Your task to perform on an android device: open app "PUBG MOBILE" (install if not already installed) Image 0: 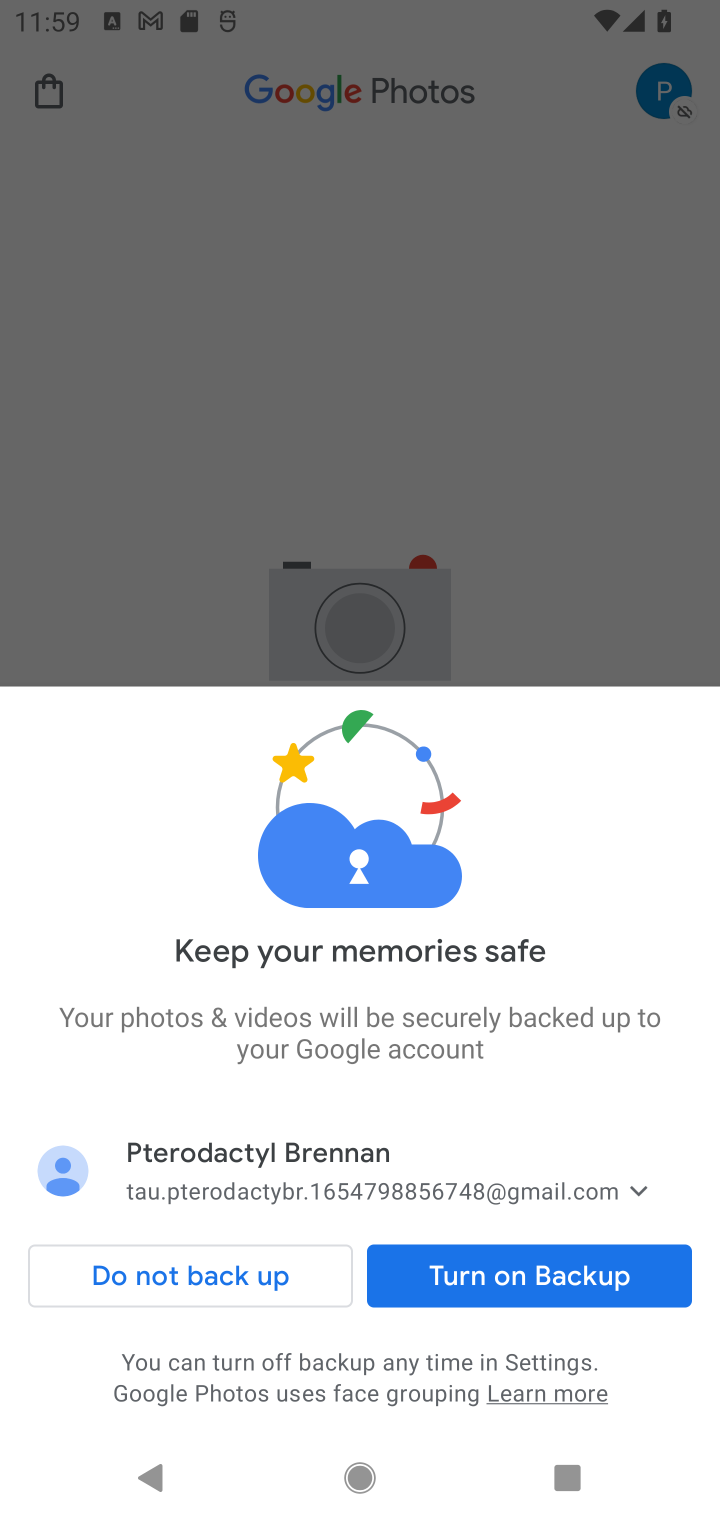
Step 0: press home button
Your task to perform on an android device: open app "PUBG MOBILE" (install if not already installed) Image 1: 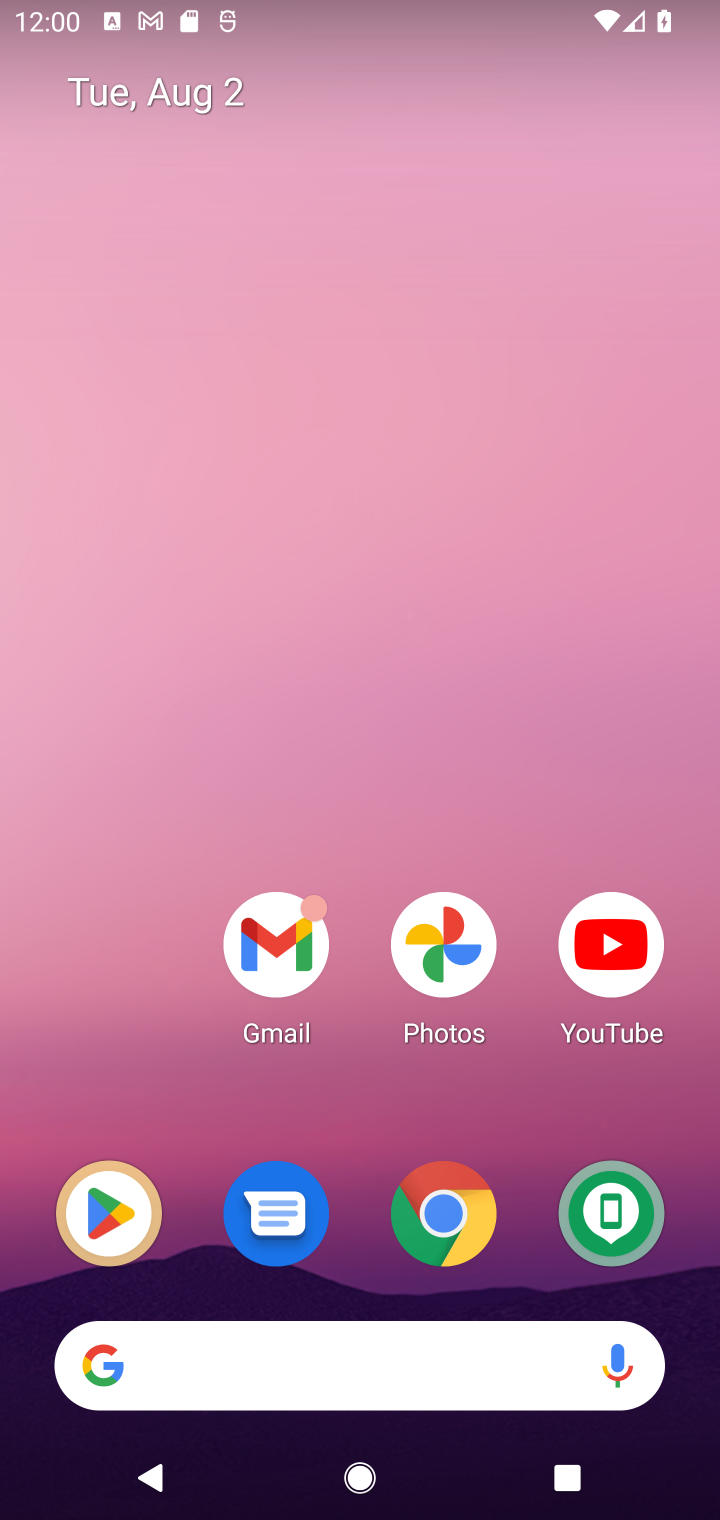
Step 1: click (102, 1244)
Your task to perform on an android device: open app "PUBG MOBILE" (install if not already installed) Image 2: 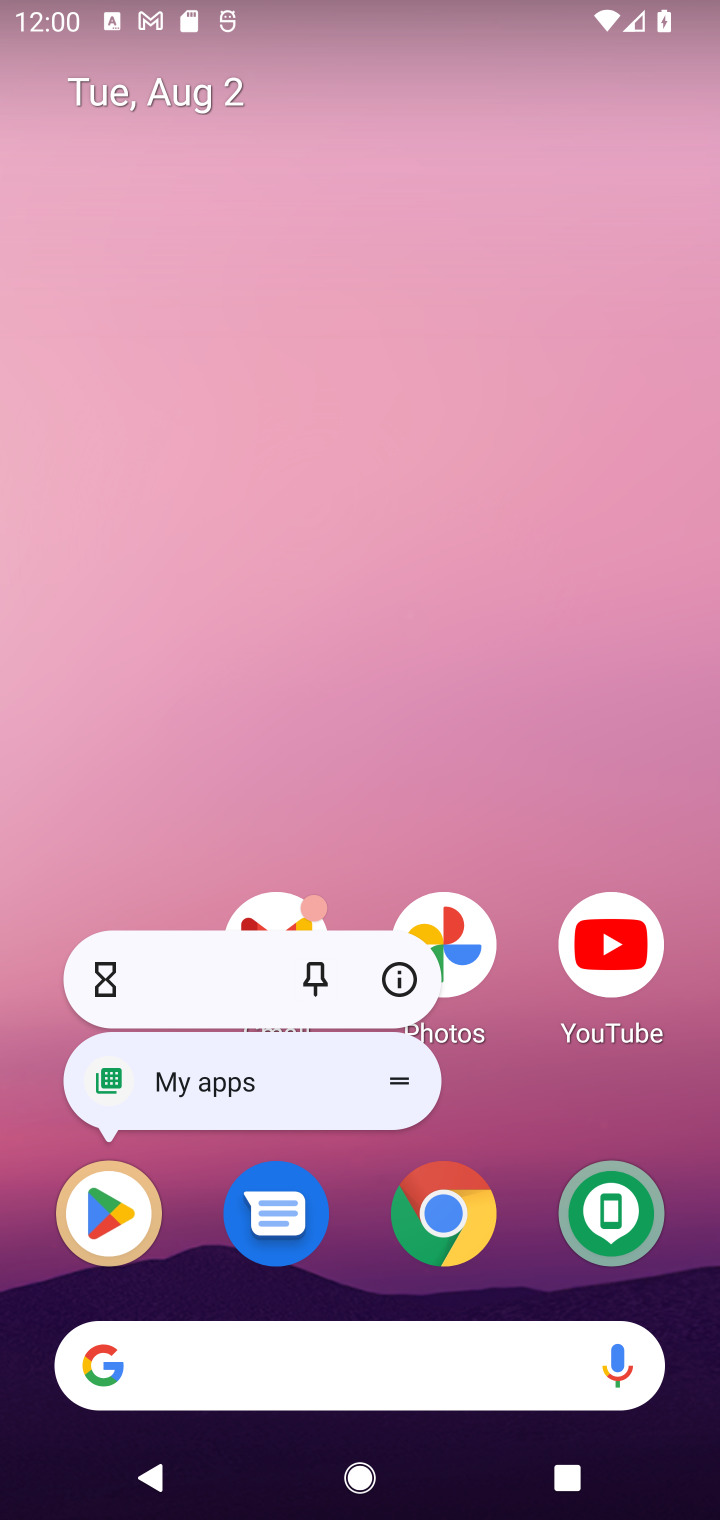
Step 2: click (103, 1231)
Your task to perform on an android device: open app "PUBG MOBILE" (install if not already installed) Image 3: 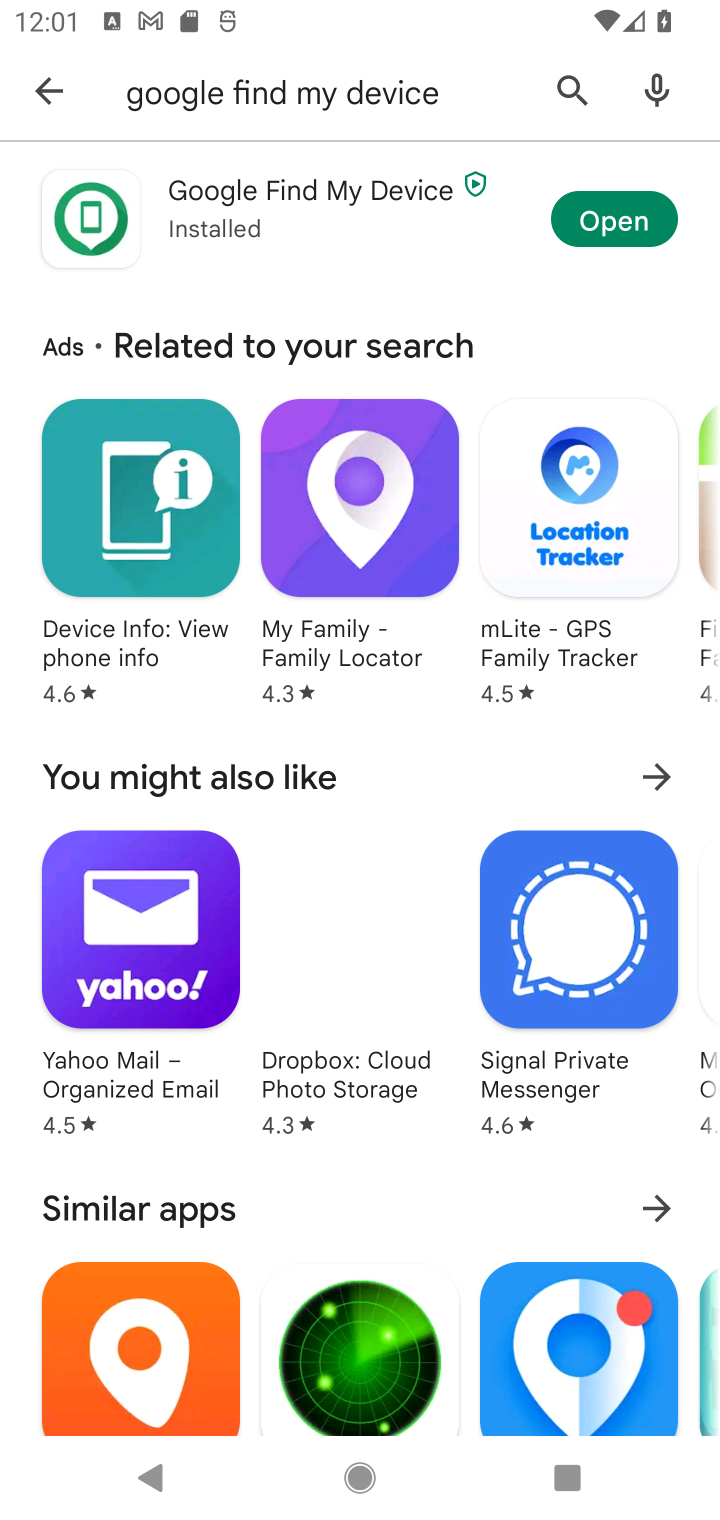
Step 3: click (38, 65)
Your task to perform on an android device: open app "PUBG MOBILE" (install if not already installed) Image 4: 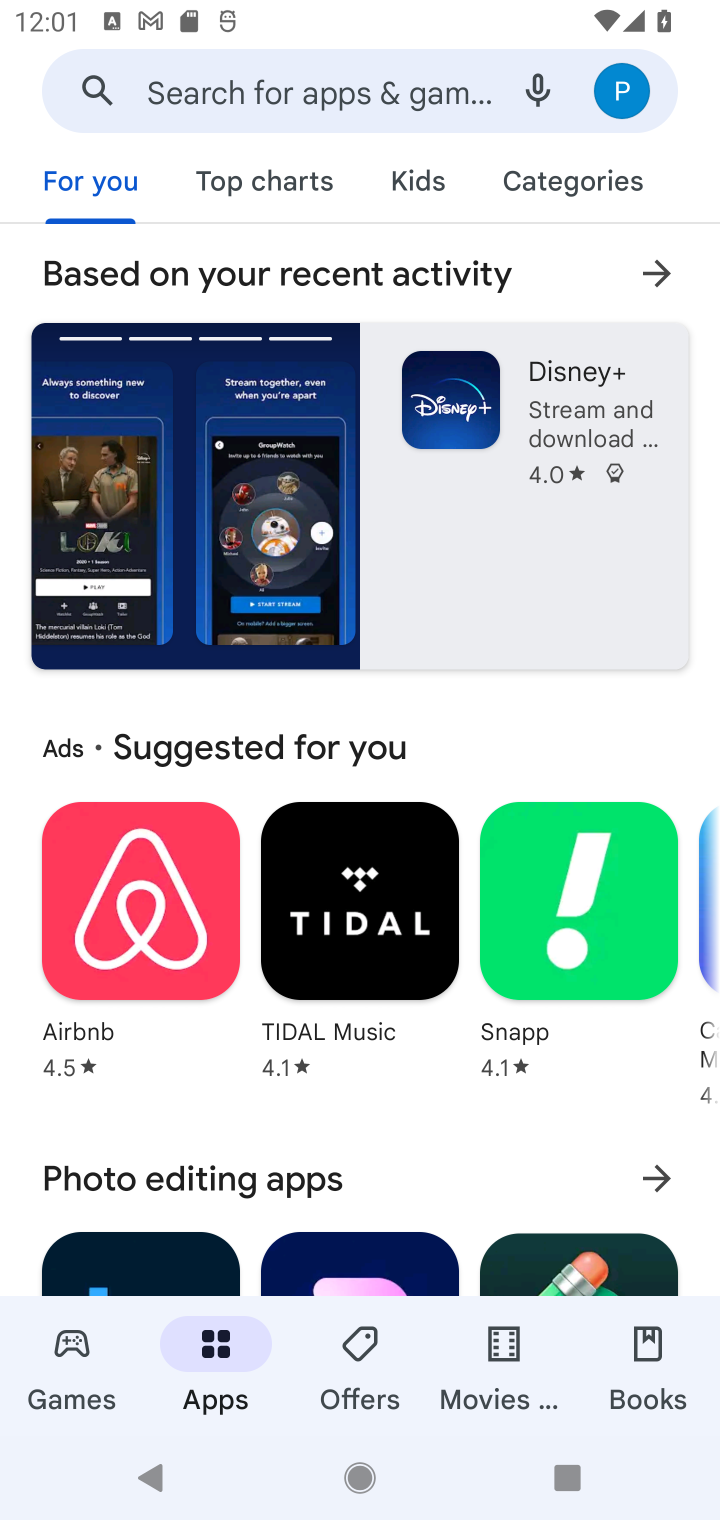
Step 4: click (315, 84)
Your task to perform on an android device: open app "PUBG MOBILE" (install if not already installed) Image 5: 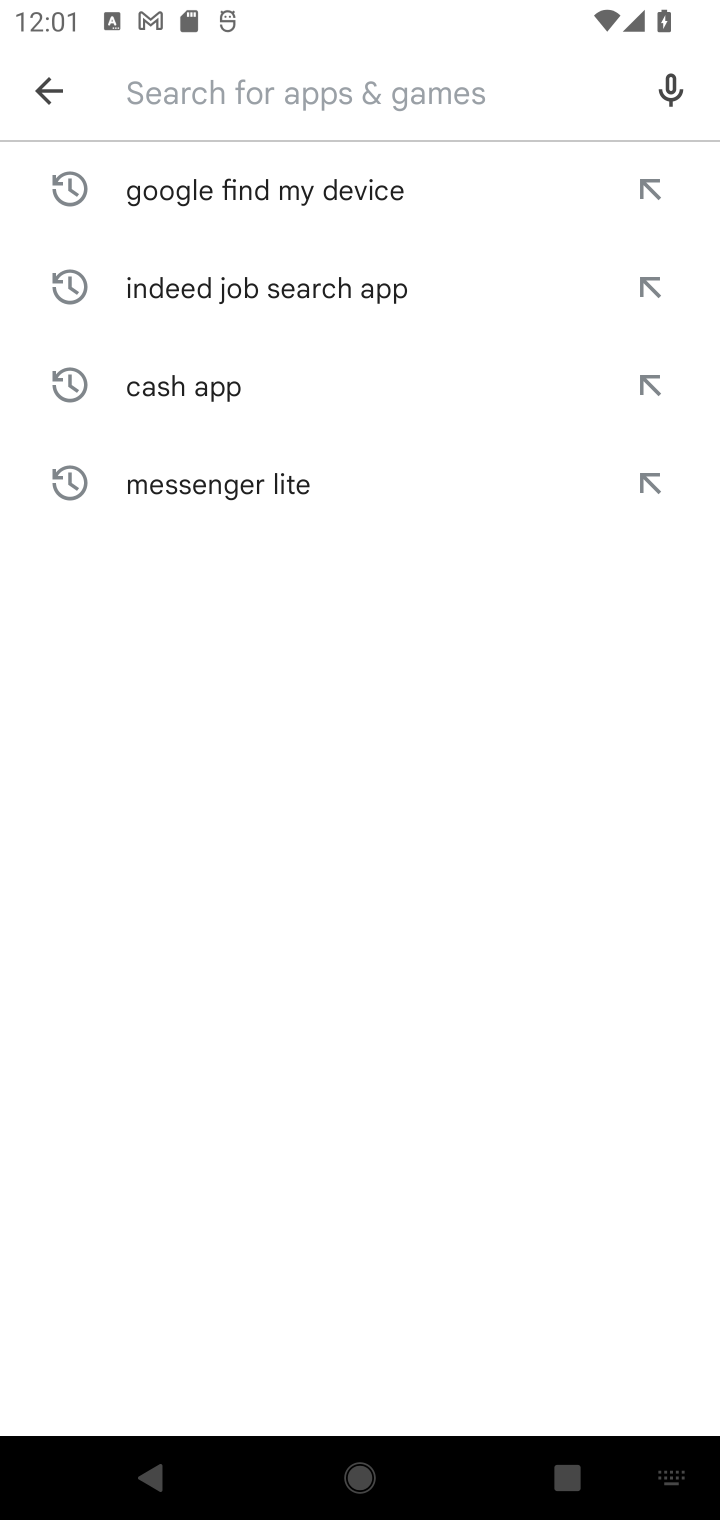
Step 5: type "PUBG MOBILE"
Your task to perform on an android device: open app "PUBG MOBILE" (install if not already installed) Image 6: 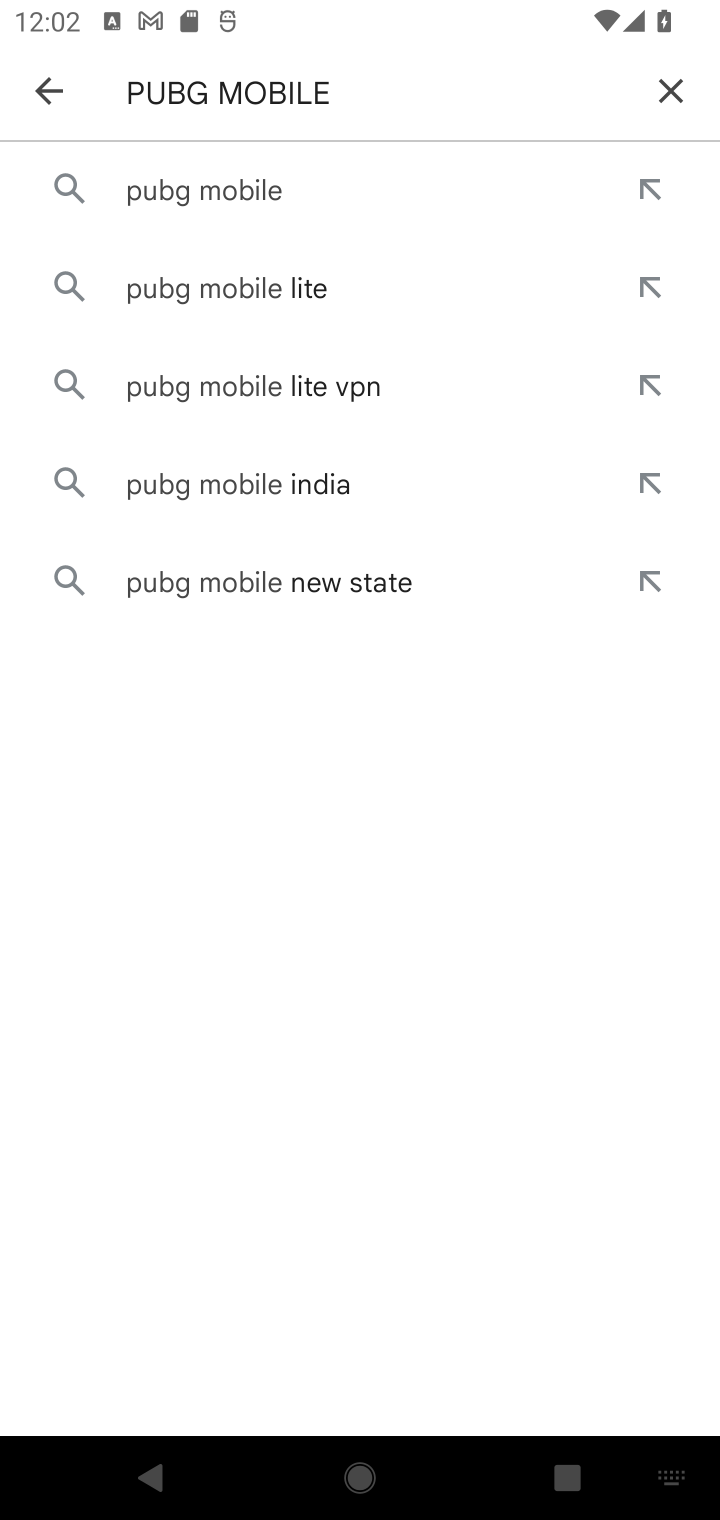
Step 6: click (176, 207)
Your task to perform on an android device: open app "PUBG MOBILE" (install if not already installed) Image 7: 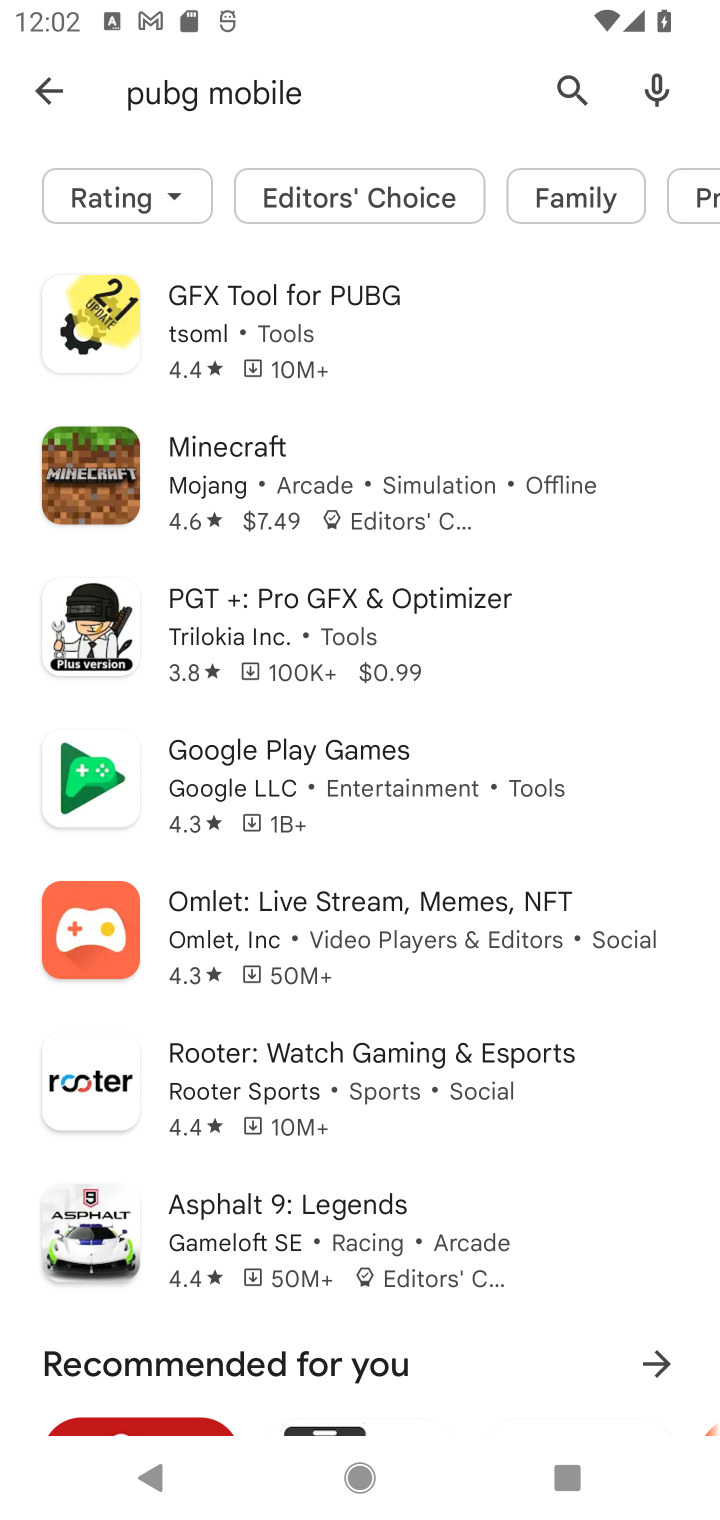
Step 7: click (261, 345)
Your task to perform on an android device: open app "PUBG MOBILE" (install if not already installed) Image 8: 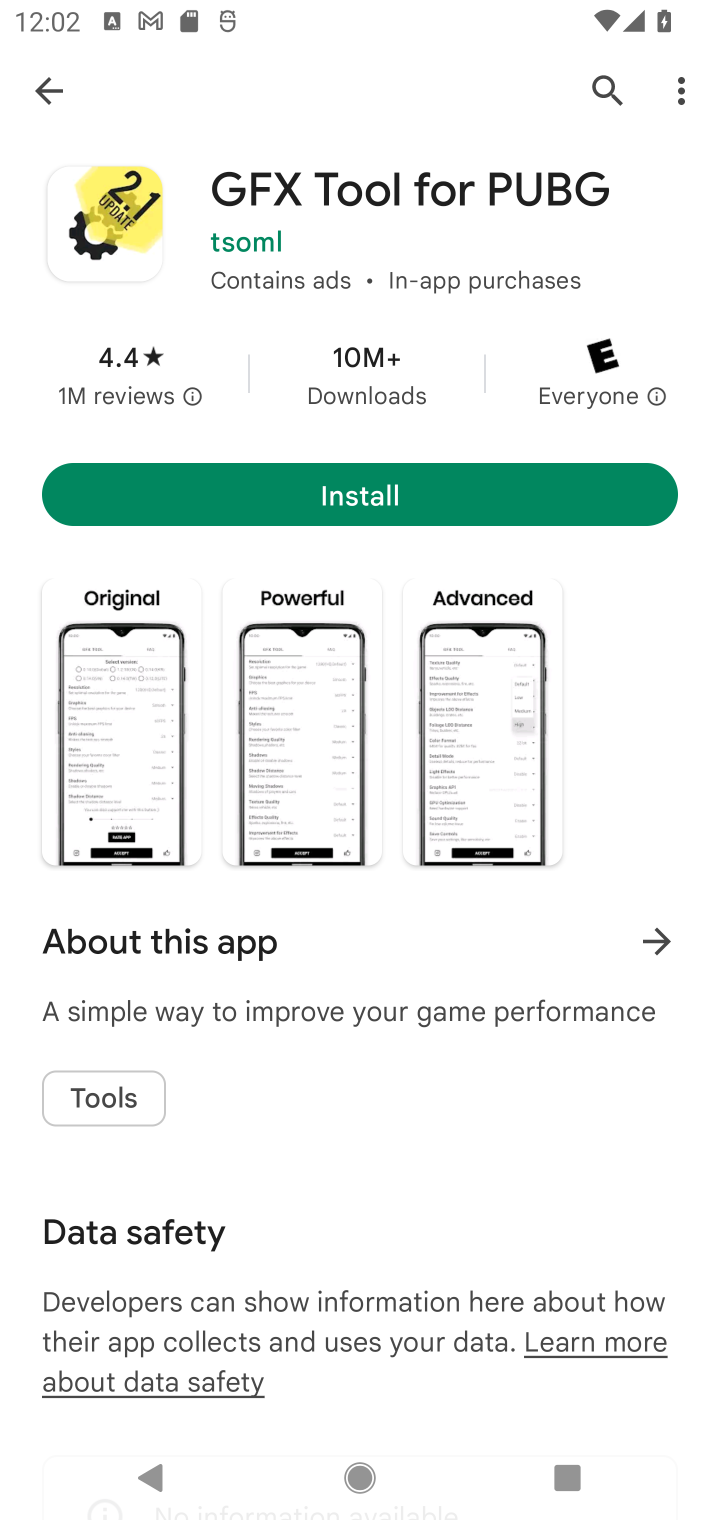
Step 8: click (336, 492)
Your task to perform on an android device: open app "PUBG MOBILE" (install if not already installed) Image 9: 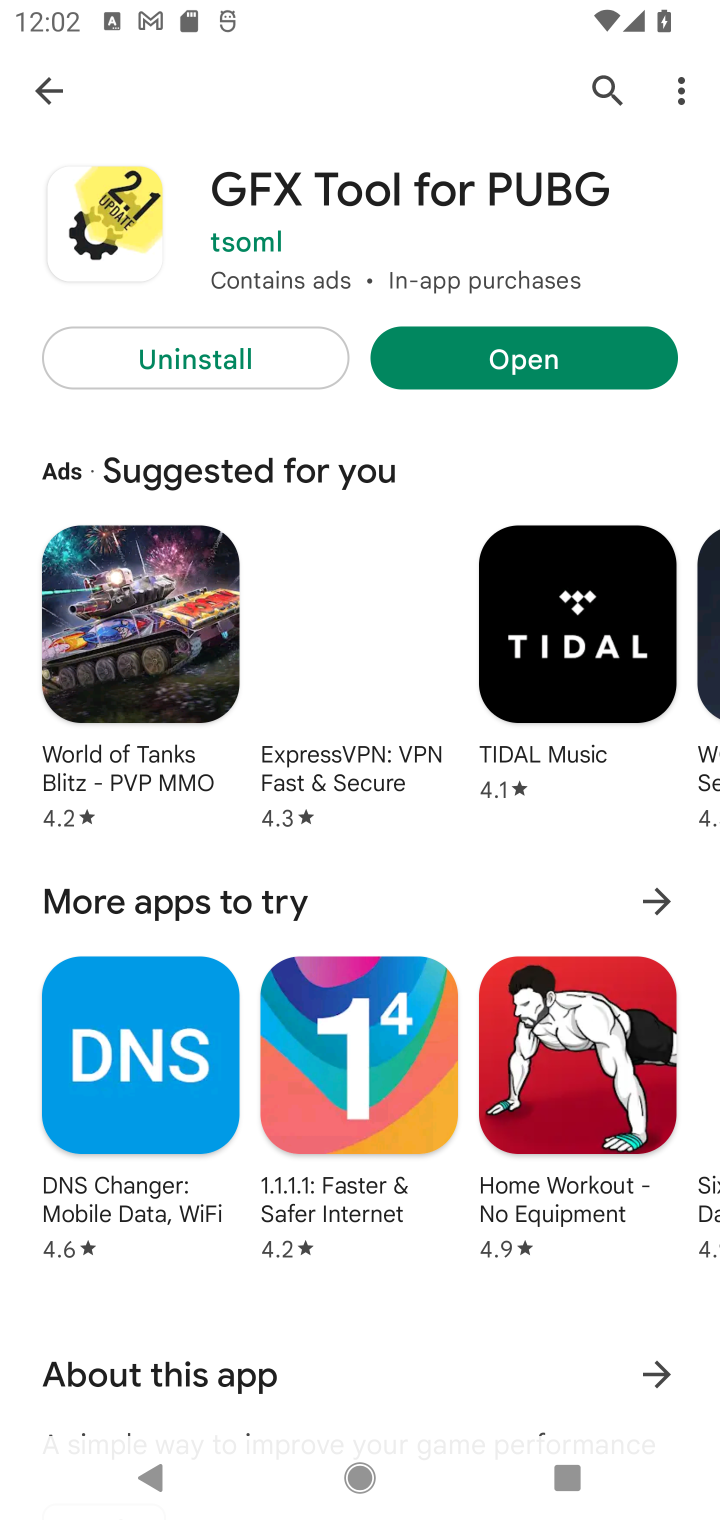
Step 9: click (478, 371)
Your task to perform on an android device: open app "PUBG MOBILE" (install if not already installed) Image 10: 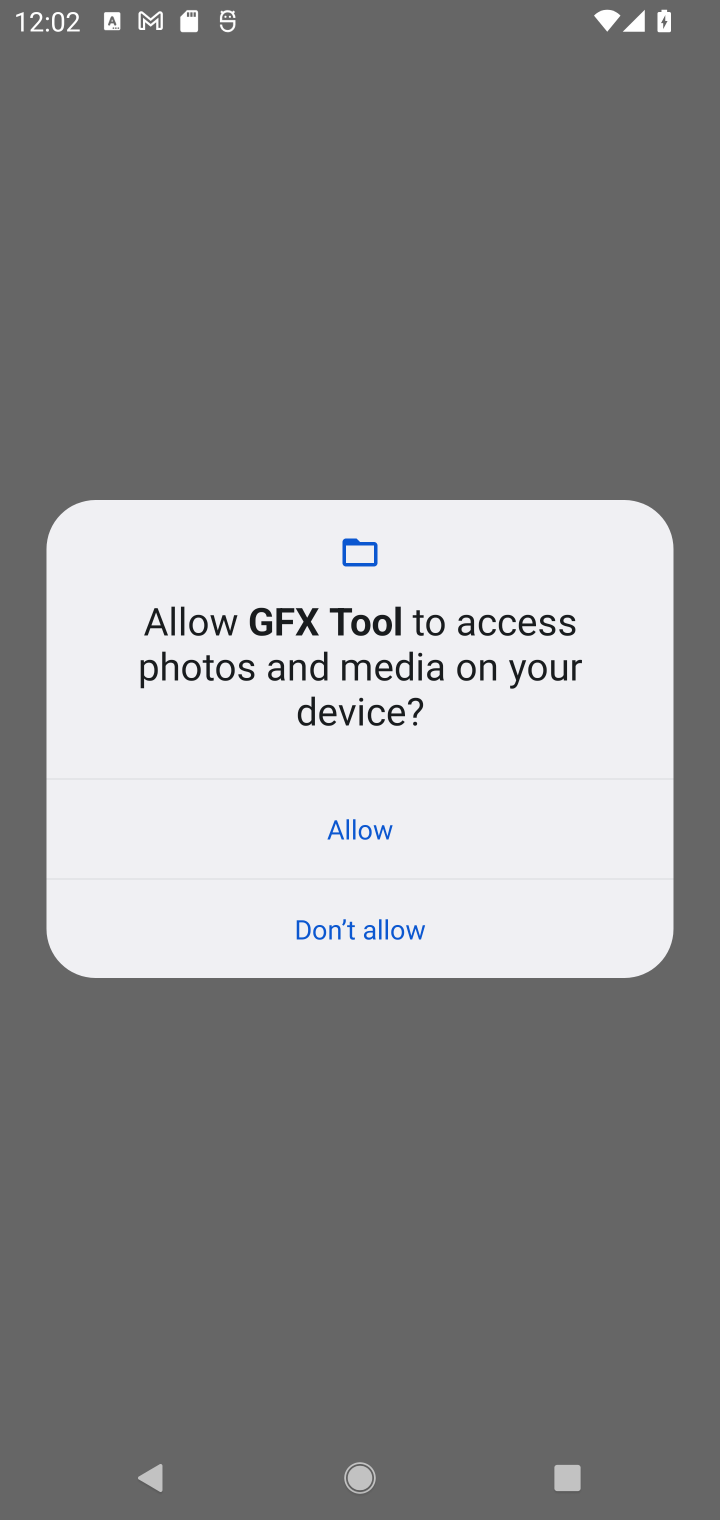
Step 10: task complete